Your task to perform on an android device: Show me productivity apps on the Play Store Image 0: 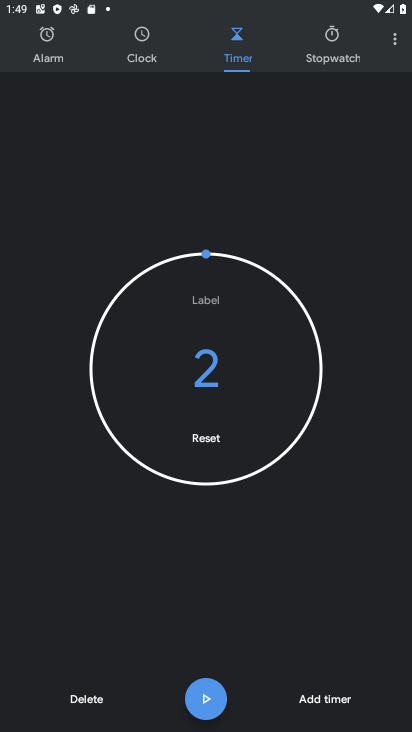
Step 0: press home button
Your task to perform on an android device: Show me productivity apps on the Play Store Image 1: 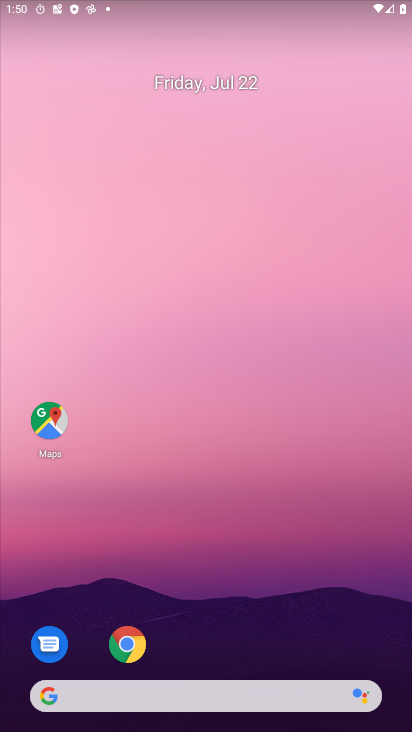
Step 1: drag from (252, 622) to (368, 0)
Your task to perform on an android device: Show me productivity apps on the Play Store Image 2: 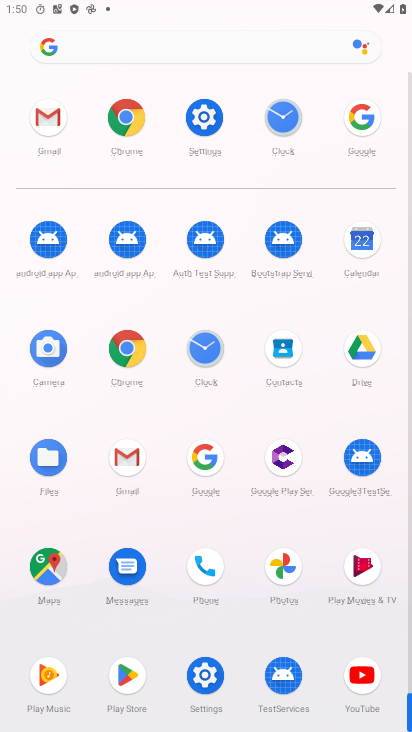
Step 2: click (133, 676)
Your task to perform on an android device: Show me productivity apps on the Play Store Image 3: 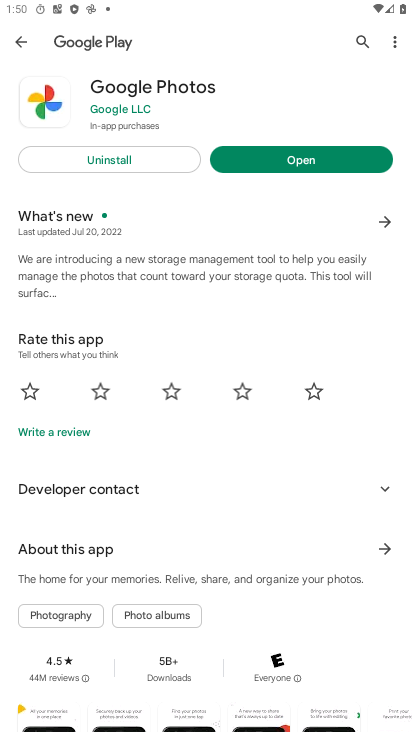
Step 3: click (18, 43)
Your task to perform on an android device: Show me productivity apps on the Play Store Image 4: 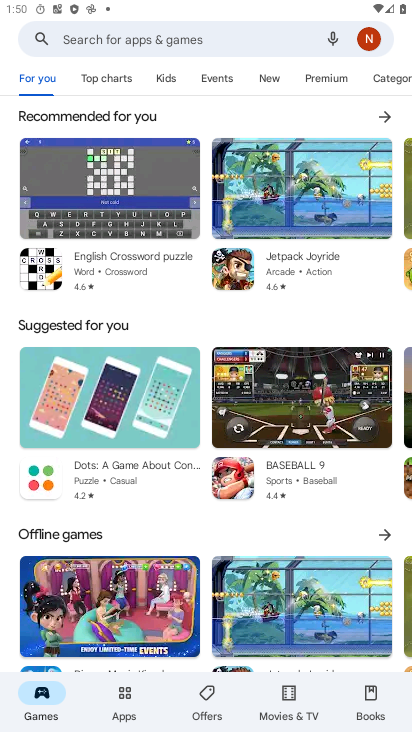
Step 4: click (244, 44)
Your task to perform on an android device: Show me productivity apps on the Play Store Image 5: 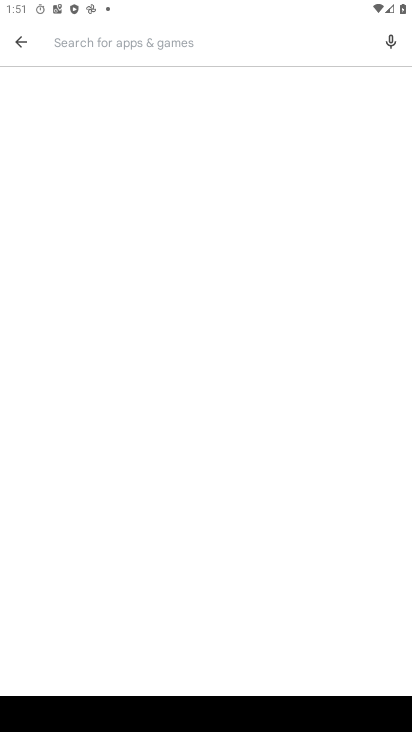
Step 5: type "productivity aaps"
Your task to perform on an android device: Show me productivity apps on the Play Store Image 6: 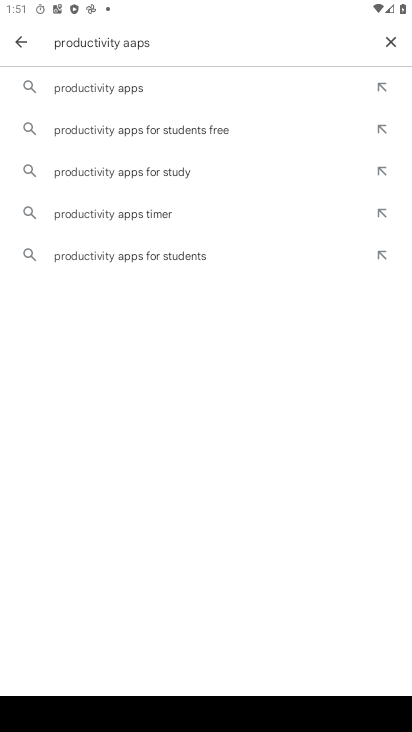
Step 6: click (132, 94)
Your task to perform on an android device: Show me productivity apps on the Play Store Image 7: 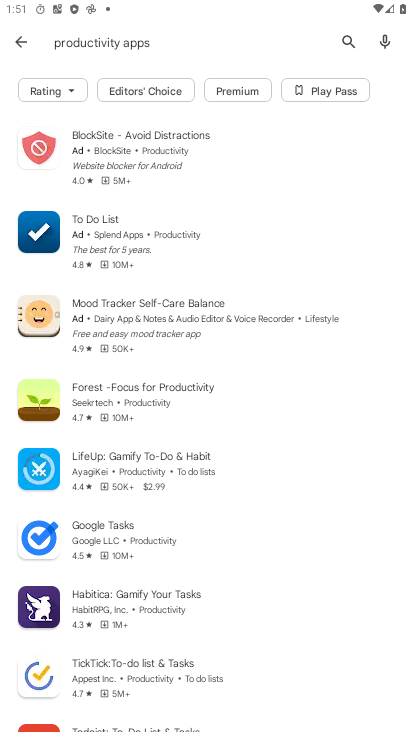
Step 7: task complete